Your task to perform on an android device: Play the last video I watched on Youtube Image 0: 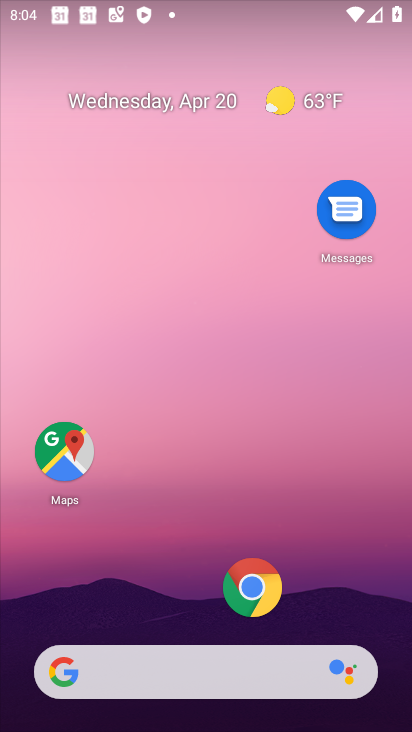
Step 0: drag from (190, 672) to (283, 184)
Your task to perform on an android device: Play the last video I watched on Youtube Image 1: 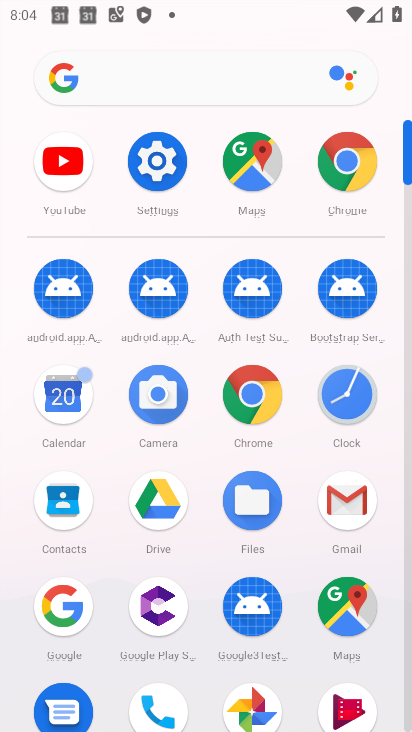
Step 1: click (64, 166)
Your task to perform on an android device: Play the last video I watched on Youtube Image 2: 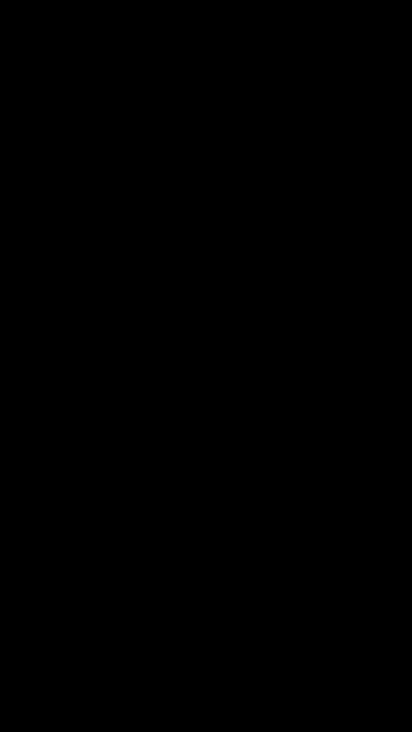
Step 2: task complete